Your task to perform on an android device: stop showing notifications on the lock screen Image 0: 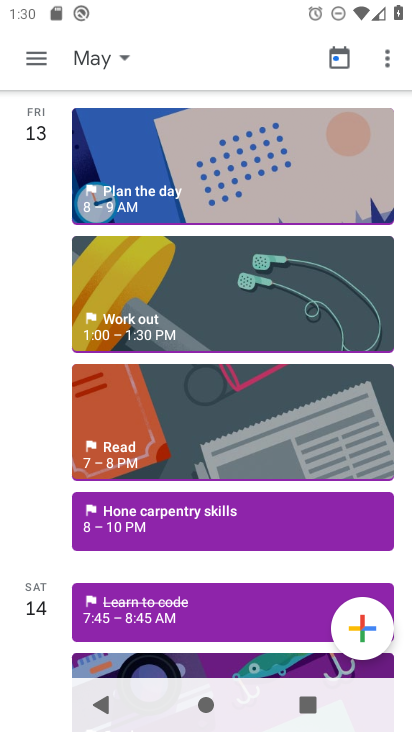
Step 0: press home button
Your task to perform on an android device: stop showing notifications on the lock screen Image 1: 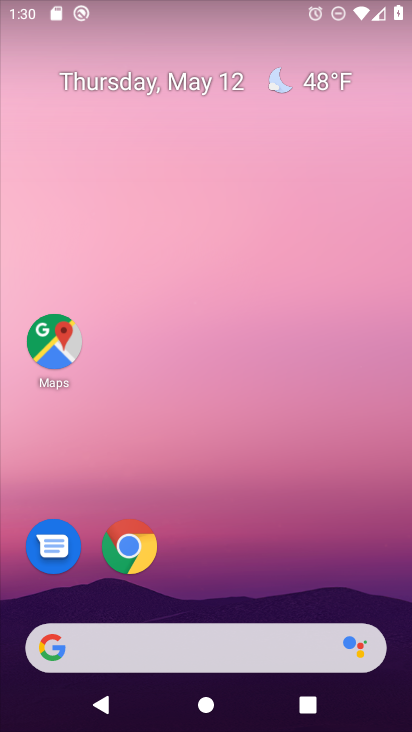
Step 1: drag from (237, 656) to (371, 188)
Your task to perform on an android device: stop showing notifications on the lock screen Image 2: 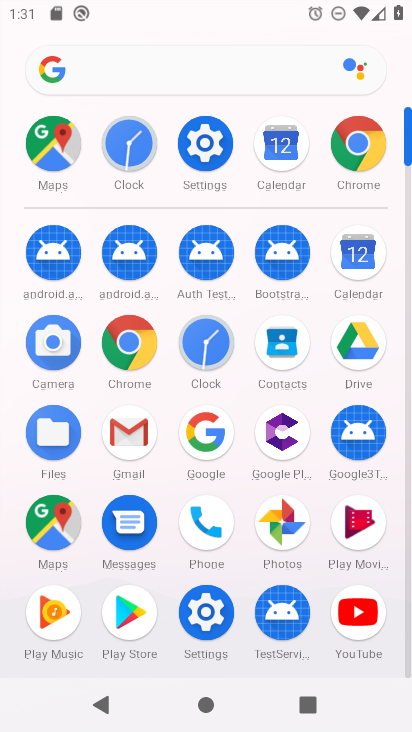
Step 2: click (199, 148)
Your task to perform on an android device: stop showing notifications on the lock screen Image 3: 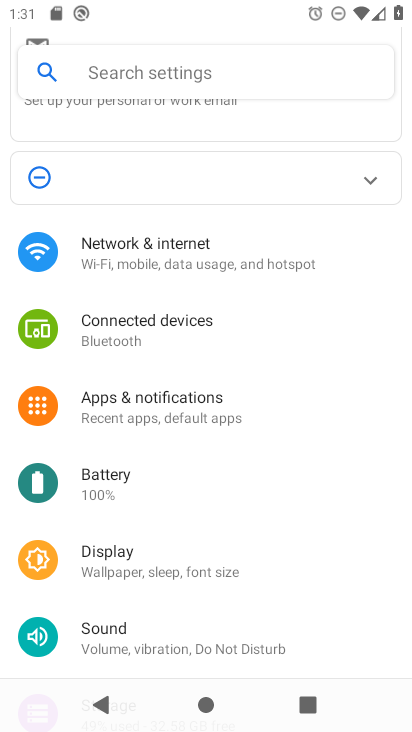
Step 3: click (148, 401)
Your task to perform on an android device: stop showing notifications on the lock screen Image 4: 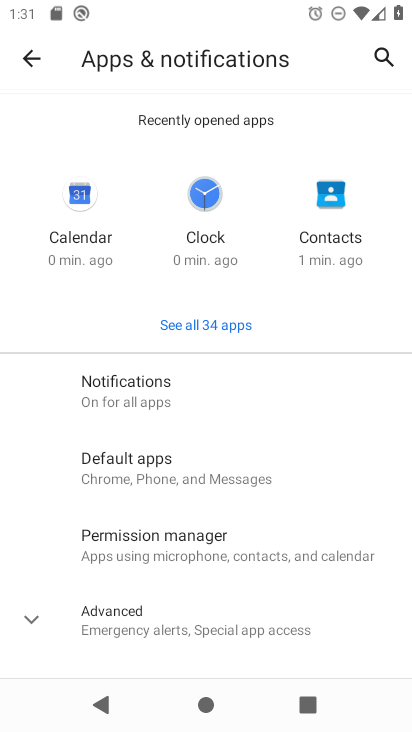
Step 4: click (153, 392)
Your task to perform on an android device: stop showing notifications on the lock screen Image 5: 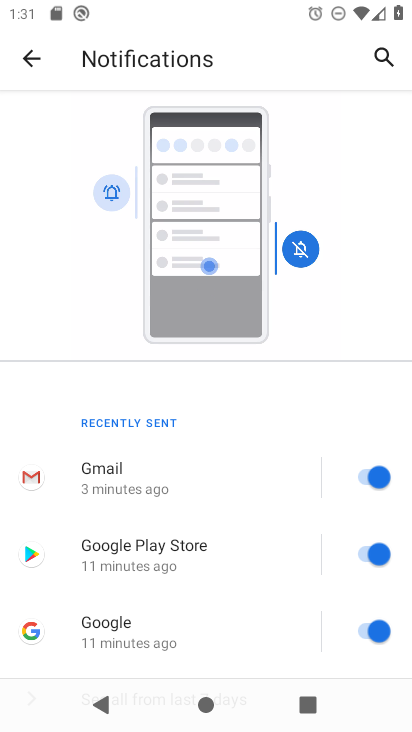
Step 5: drag from (241, 582) to (384, 167)
Your task to perform on an android device: stop showing notifications on the lock screen Image 6: 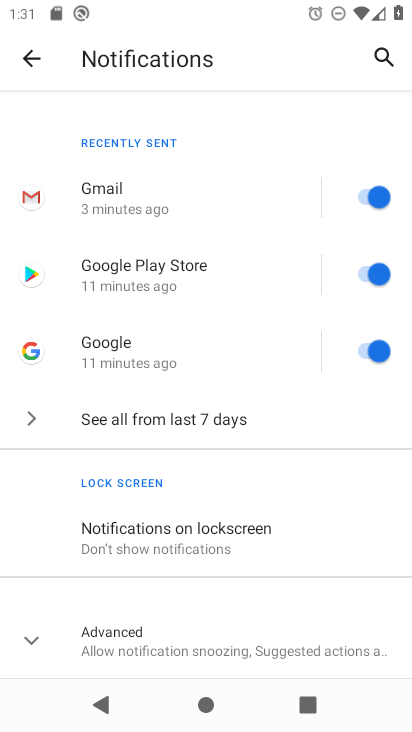
Step 6: click (173, 531)
Your task to perform on an android device: stop showing notifications on the lock screen Image 7: 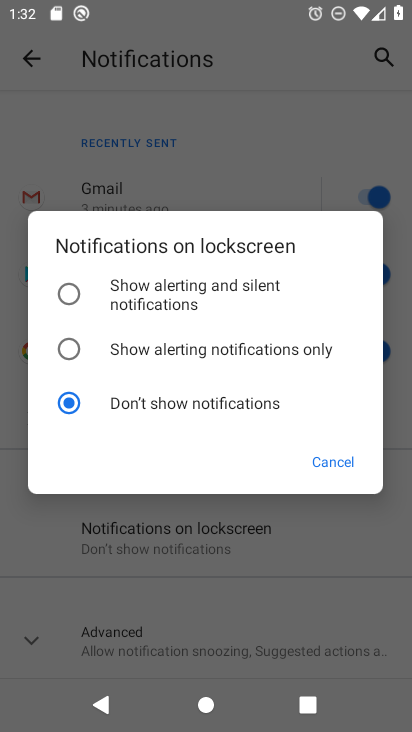
Step 7: task complete